Your task to perform on an android device: What's on my calendar today? Image 0: 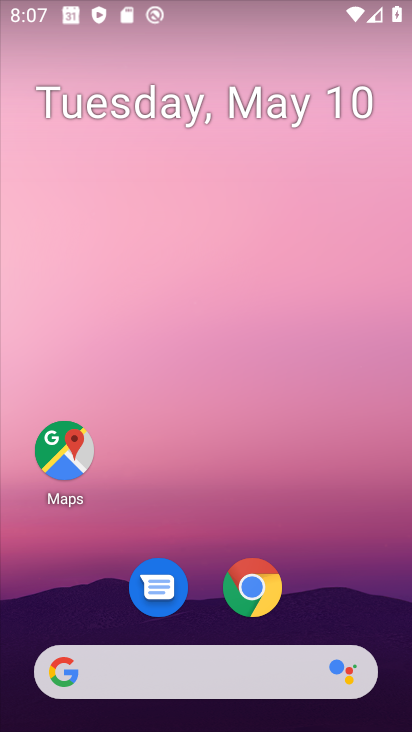
Step 0: drag from (360, 602) to (330, 62)
Your task to perform on an android device: What's on my calendar today? Image 1: 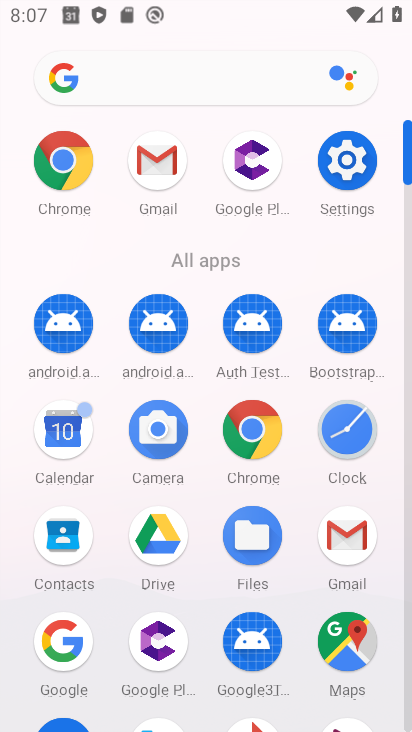
Step 1: click (80, 443)
Your task to perform on an android device: What's on my calendar today? Image 2: 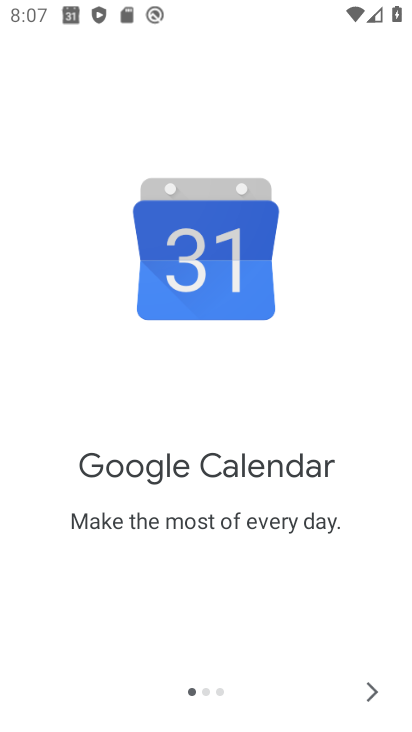
Step 2: click (382, 680)
Your task to perform on an android device: What's on my calendar today? Image 3: 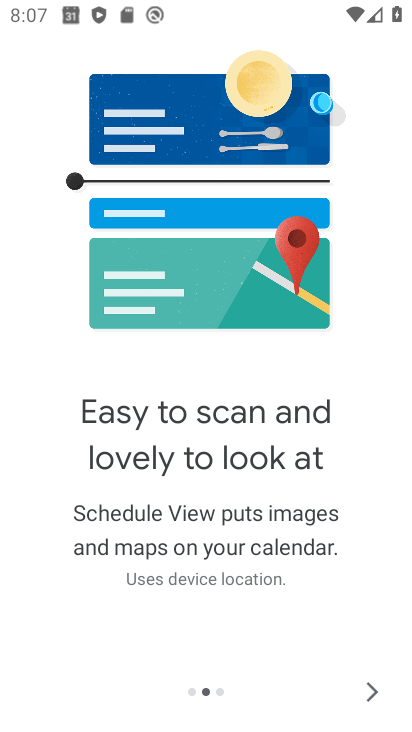
Step 3: click (382, 680)
Your task to perform on an android device: What's on my calendar today? Image 4: 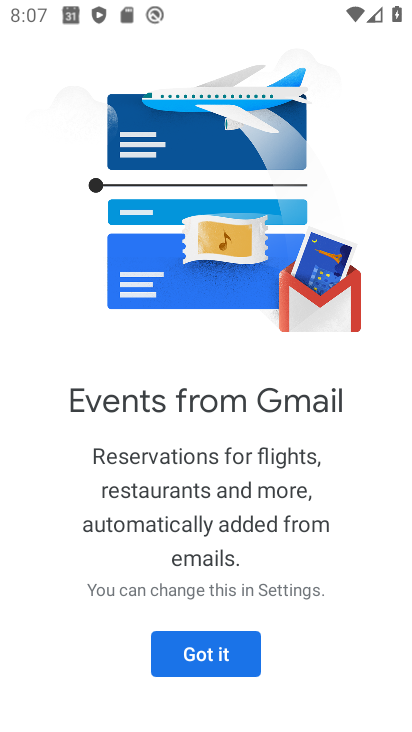
Step 4: click (166, 643)
Your task to perform on an android device: What's on my calendar today? Image 5: 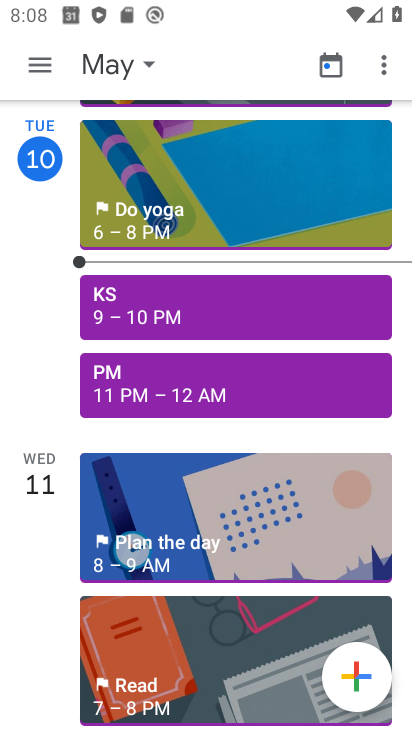
Step 5: click (117, 57)
Your task to perform on an android device: What's on my calendar today? Image 6: 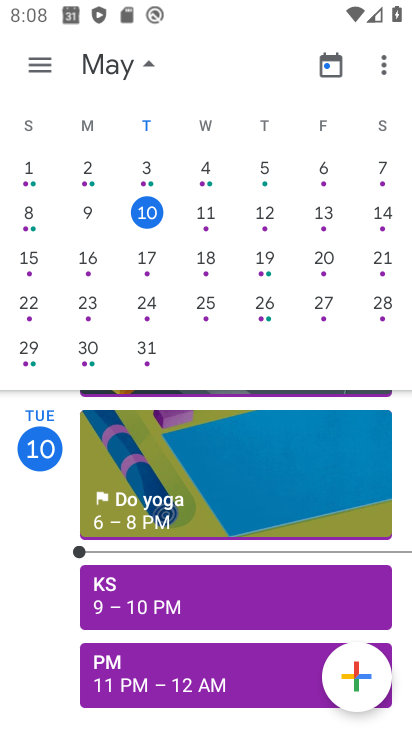
Step 6: task complete